Your task to perform on an android device: Go to sound settings Image 0: 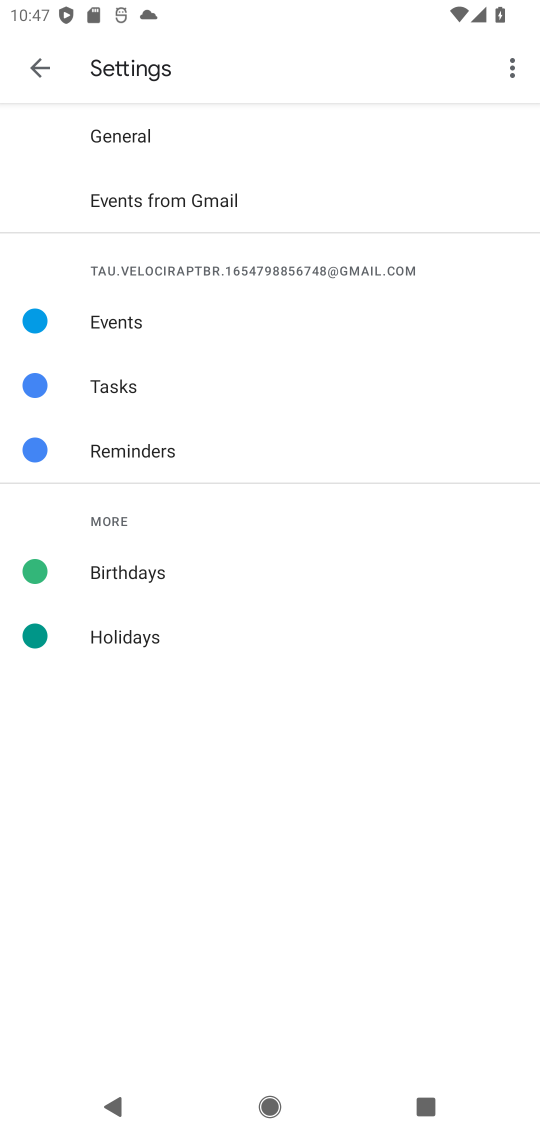
Step 0: press home button
Your task to perform on an android device: Go to sound settings Image 1: 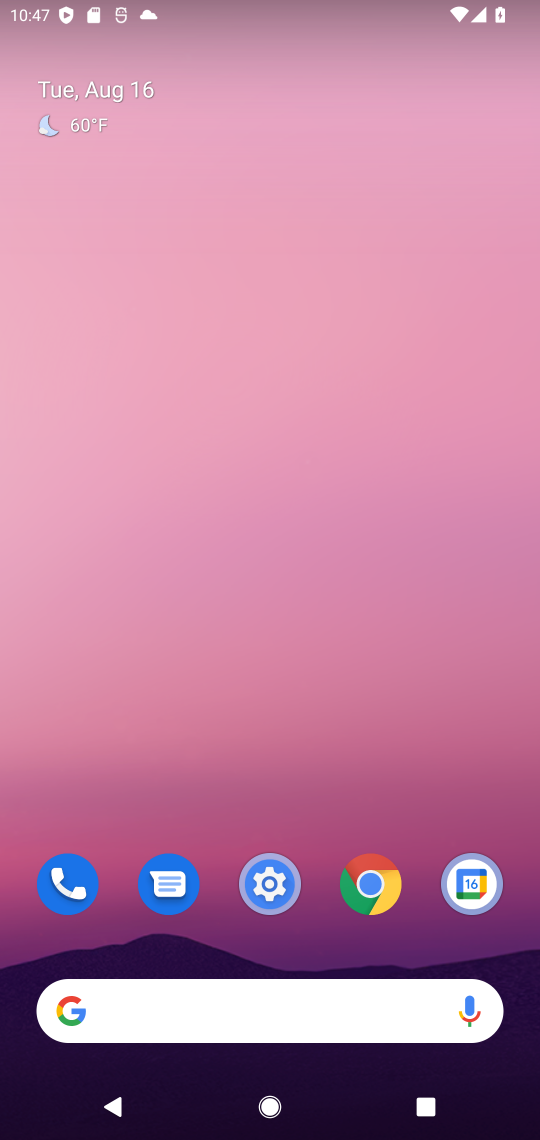
Step 1: click (274, 891)
Your task to perform on an android device: Go to sound settings Image 2: 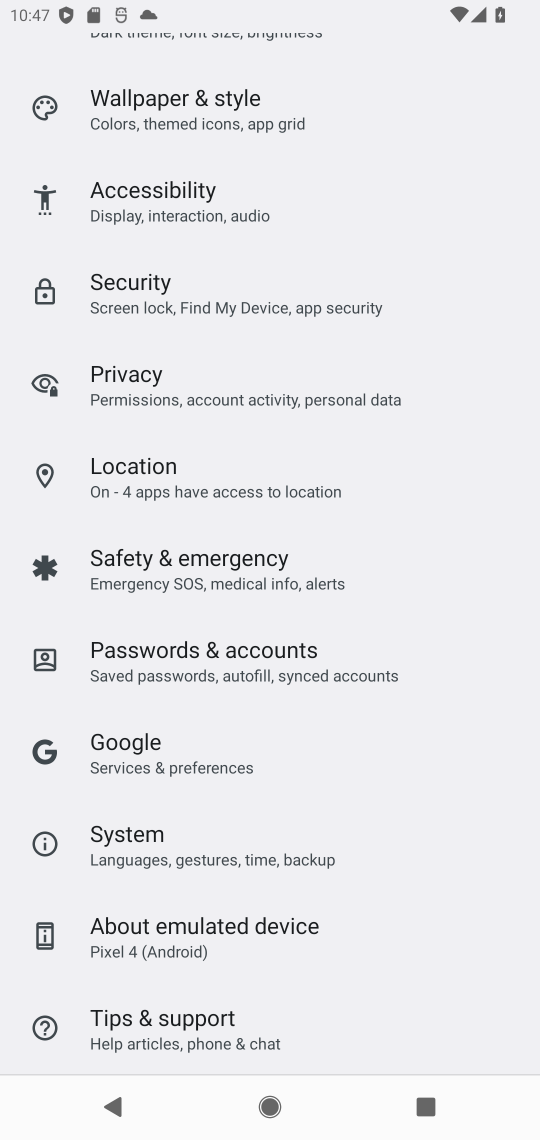
Step 2: drag from (274, 185) to (274, 616)
Your task to perform on an android device: Go to sound settings Image 3: 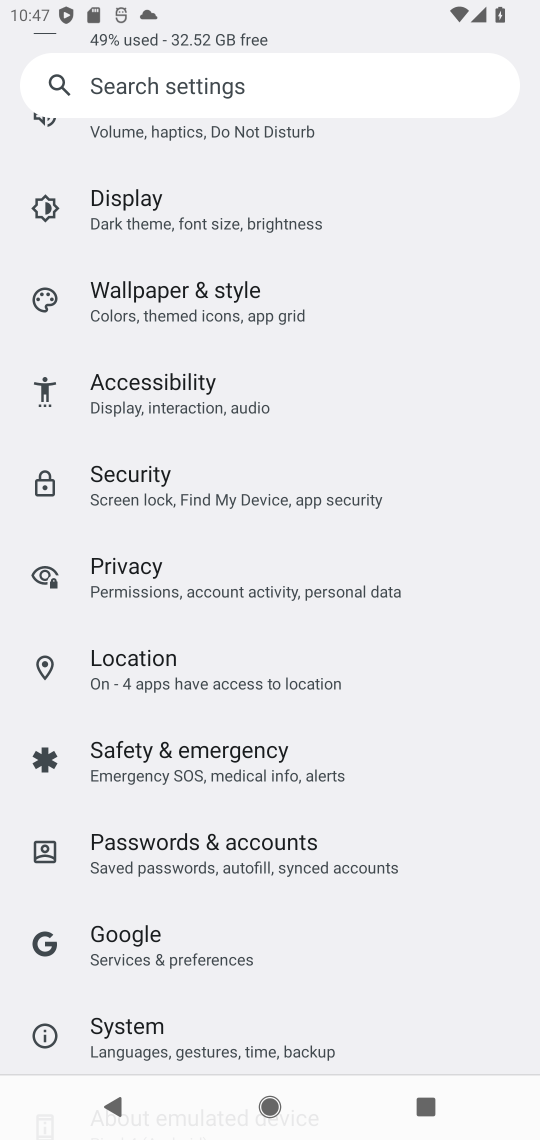
Step 3: drag from (211, 273) to (209, 800)
Your task to perform on an android device: Go to sound settings Image 4: 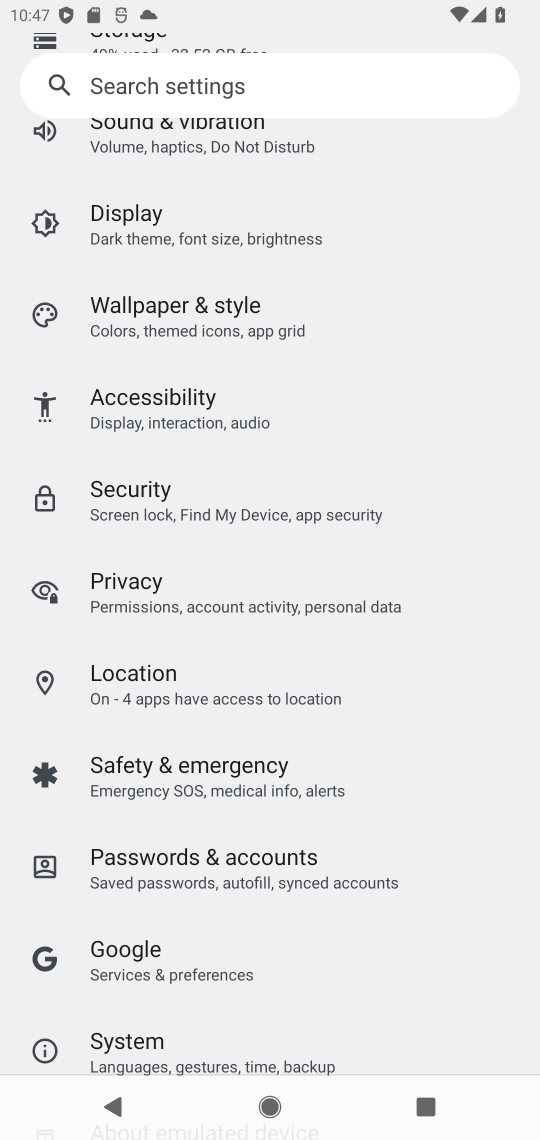
Step 4: click (138, 114)
Your task to perform on an android device: Go to sound settings Image 5: 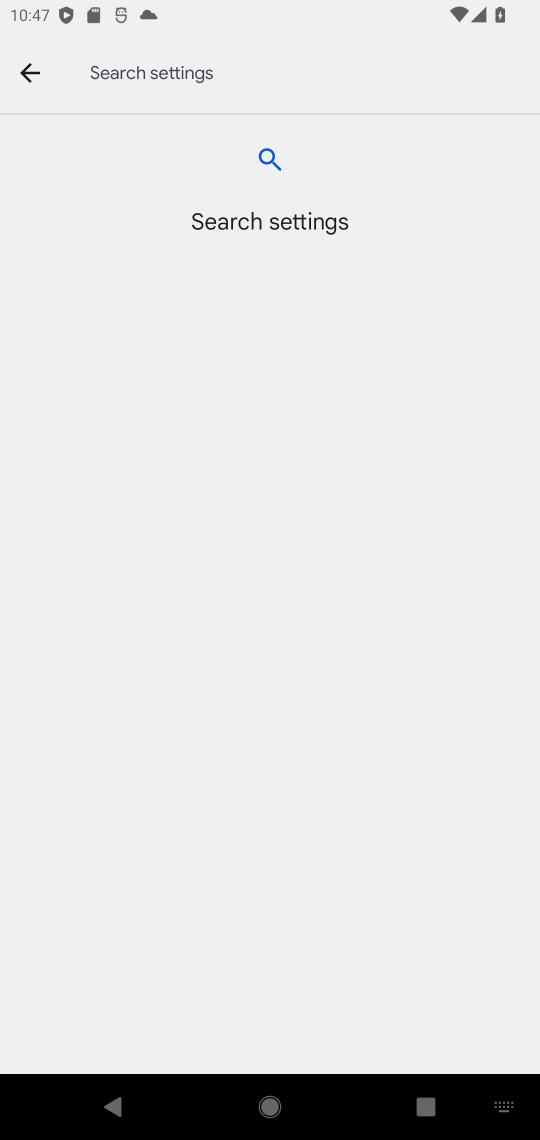
Step 5: click (24, 78)
Your task to perform on an android device: Go to sound settings Image 6: 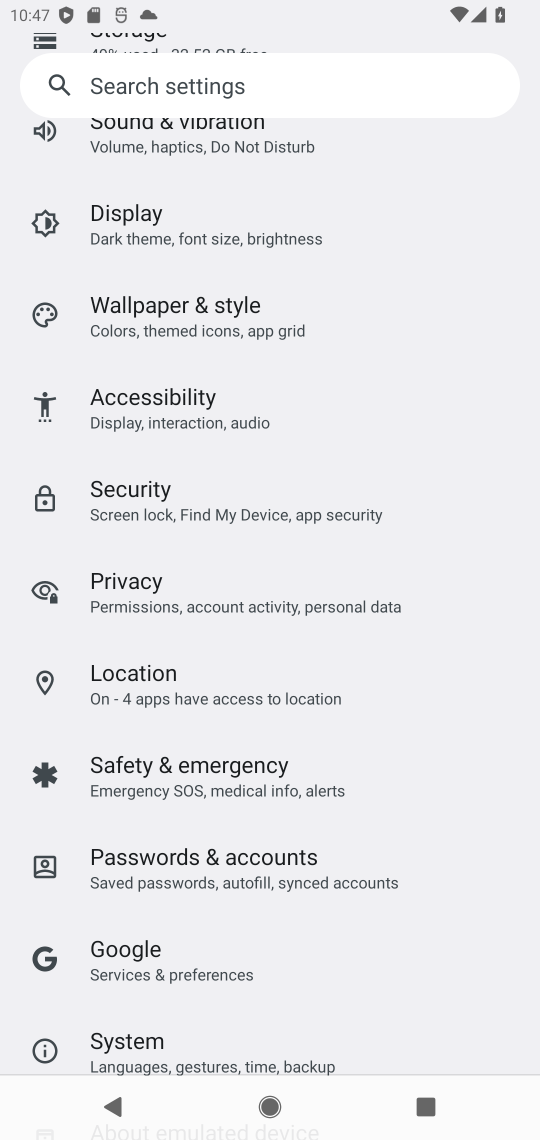
Step 6: click (123, 138)
Your task to perform on an android device: Go to sound settings Image 7: 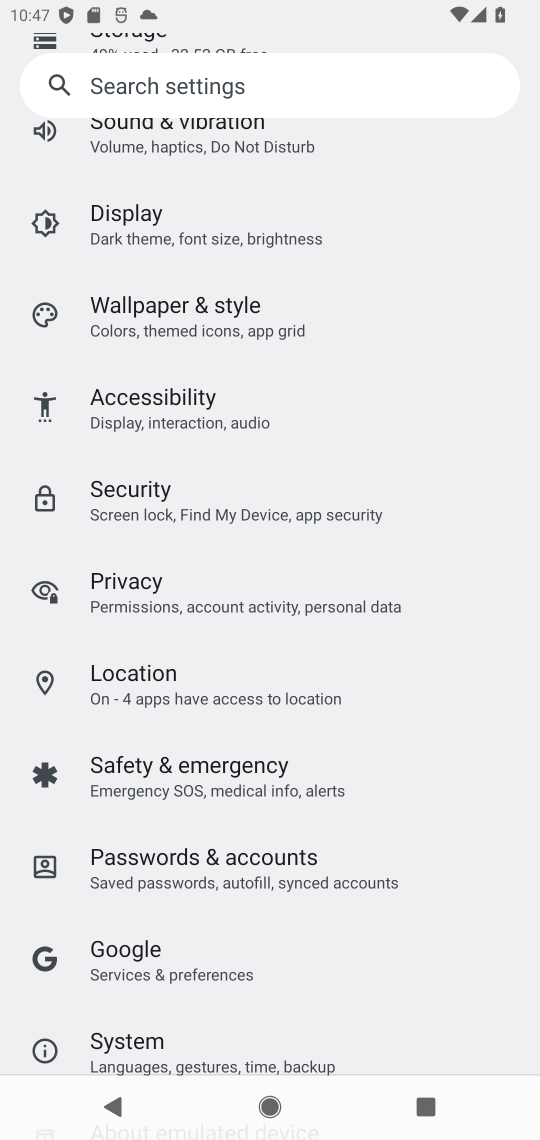
Step 7: click (123, 138)
Your task to perform on an android device: Go to sound settings Image 8: 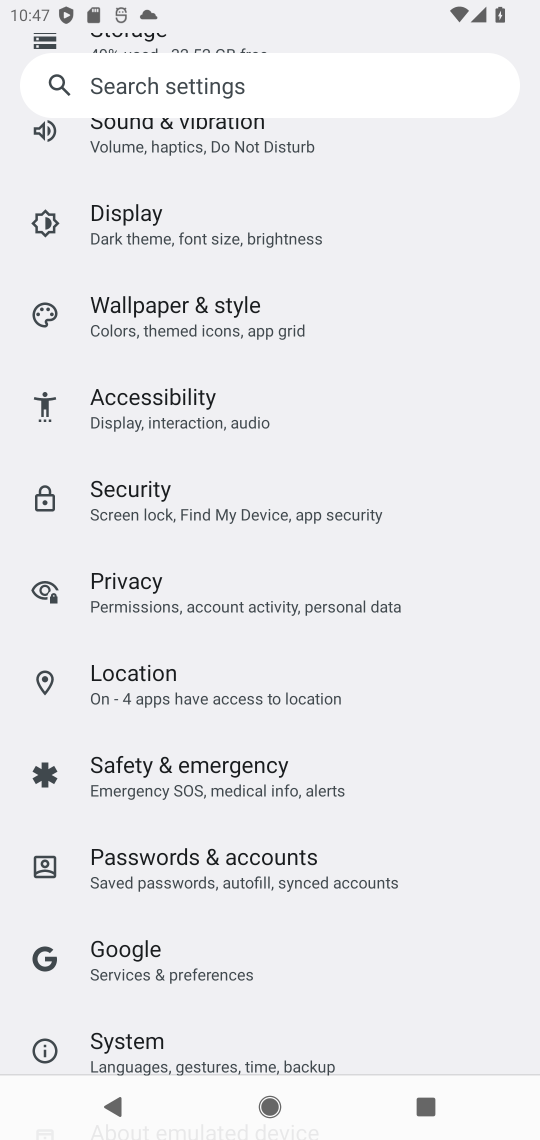
Step 8: click (123, 138)
Your task to perform on an android device: Go to sound settings Image 9: 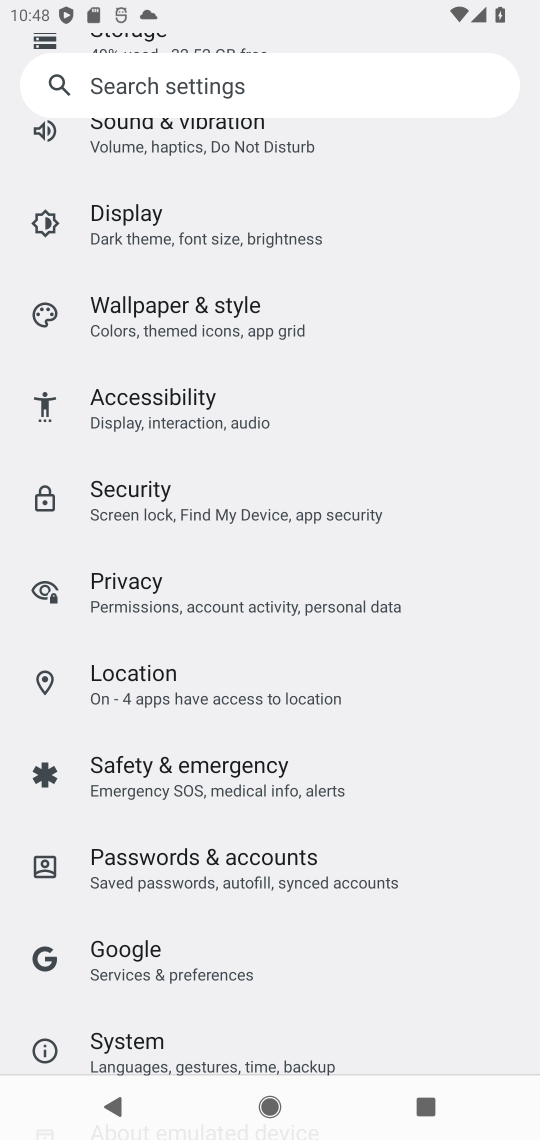
Step 9: click (123, 138)
Your task to perform on an android device: Go to sound settings Image 10: 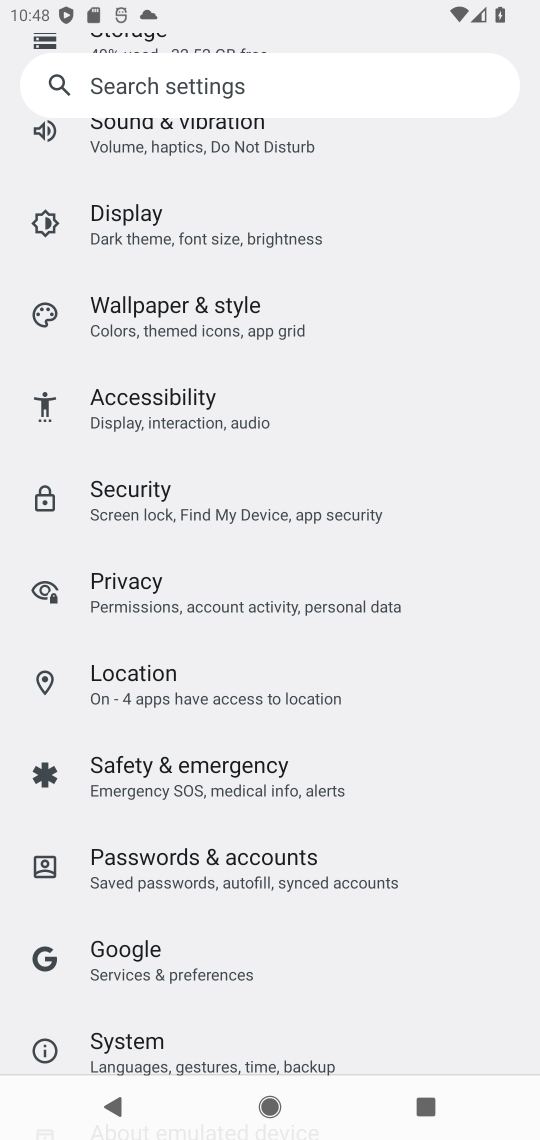
Step 10: click (148, 143)
Your task to perform on an android device: Go to sound settings Image 11: 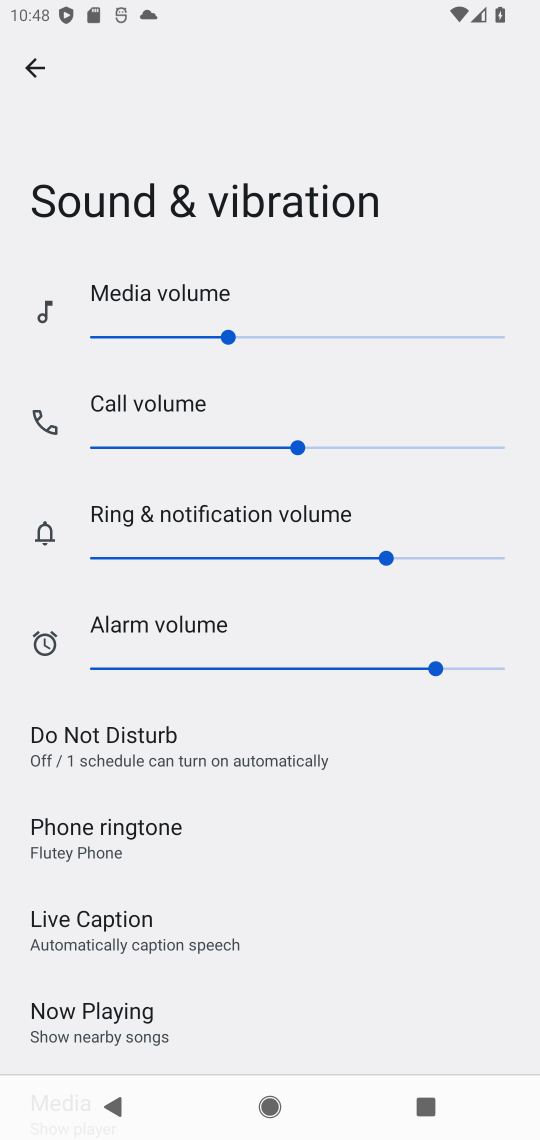
Step 11: task complete